Your task to perform on an android device: search for starred emails in the gmail app Image 0: 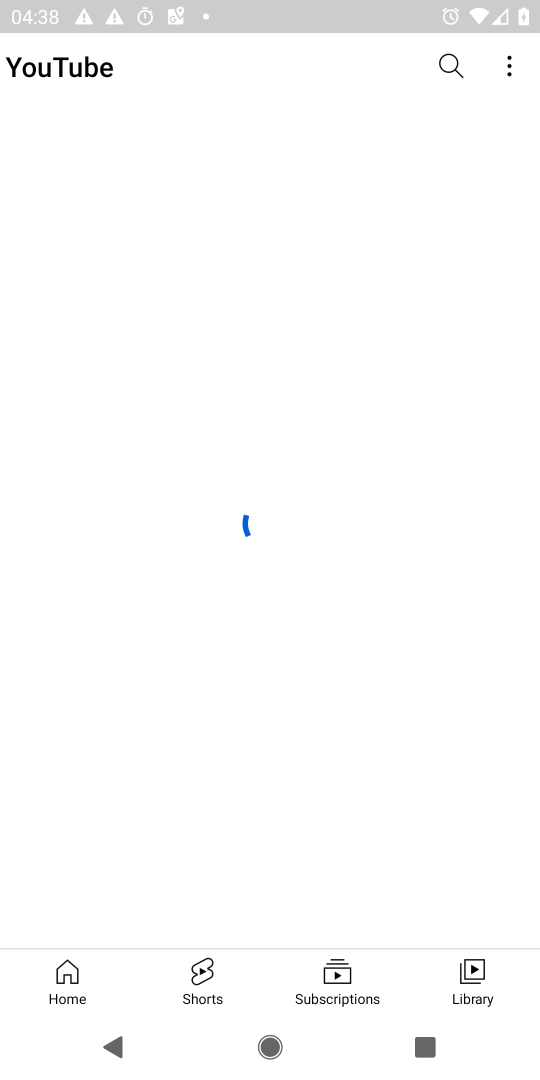
Step 0: press home button
Your task to perform on an android device: search for starred emails in the gmail app Image 1: 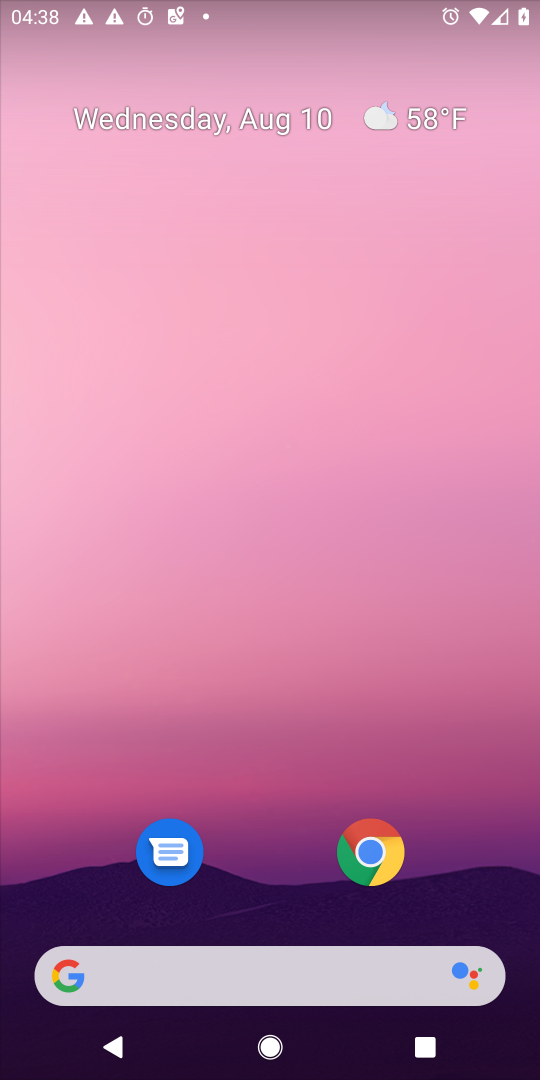
Step 1: drag from (255, 878) to (46, 4)
Your task to perform on an android device: search for starred emails in the gmail app Image 2: 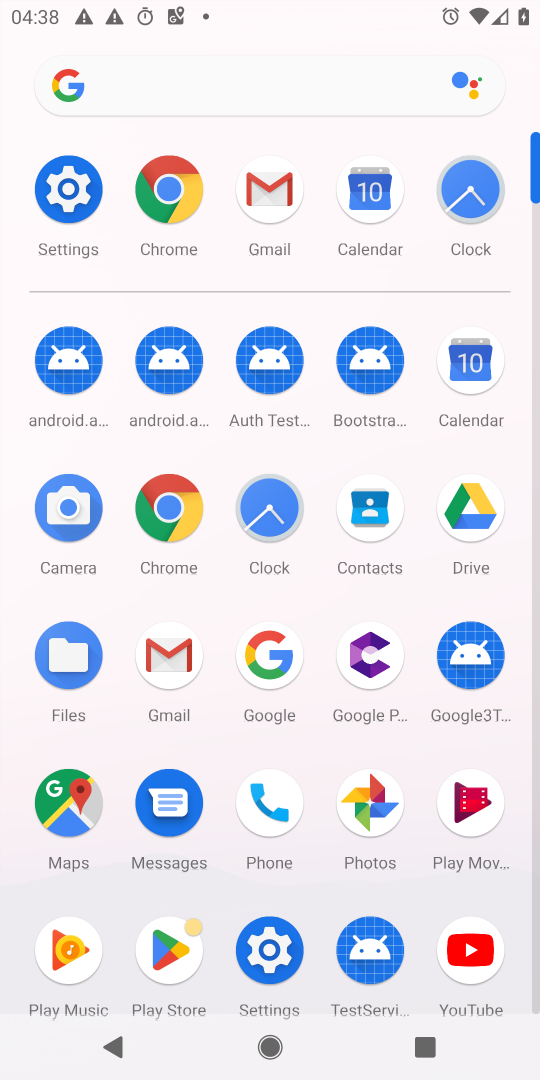
Step 2: click (181, 646)
Your task to perform on an android device: search for starred emails in the gmail app Image 3: 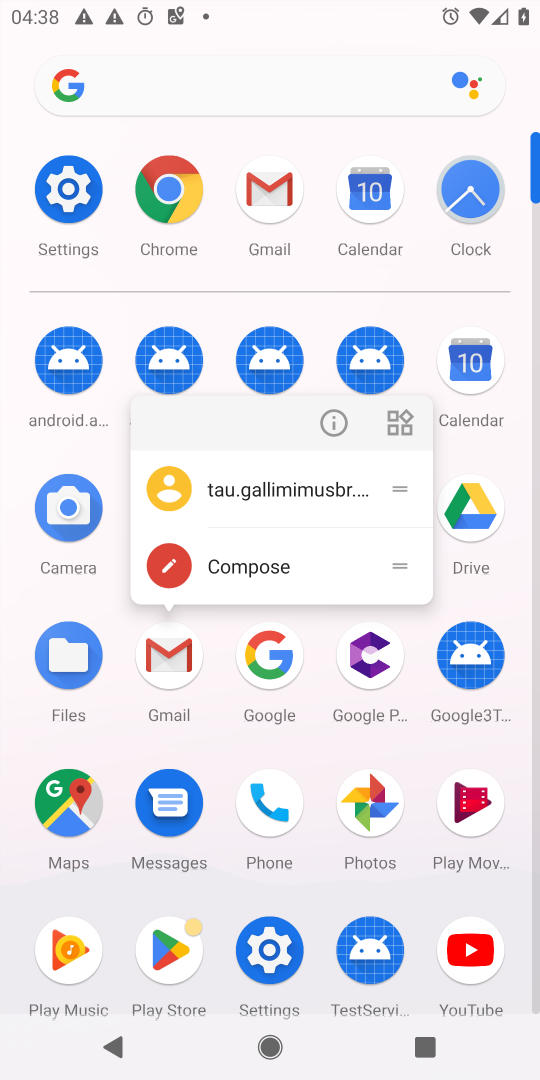
Step 3: click (177, 647)
Your task to perform on an android device: search for starred emails in the gmail app Image 4: 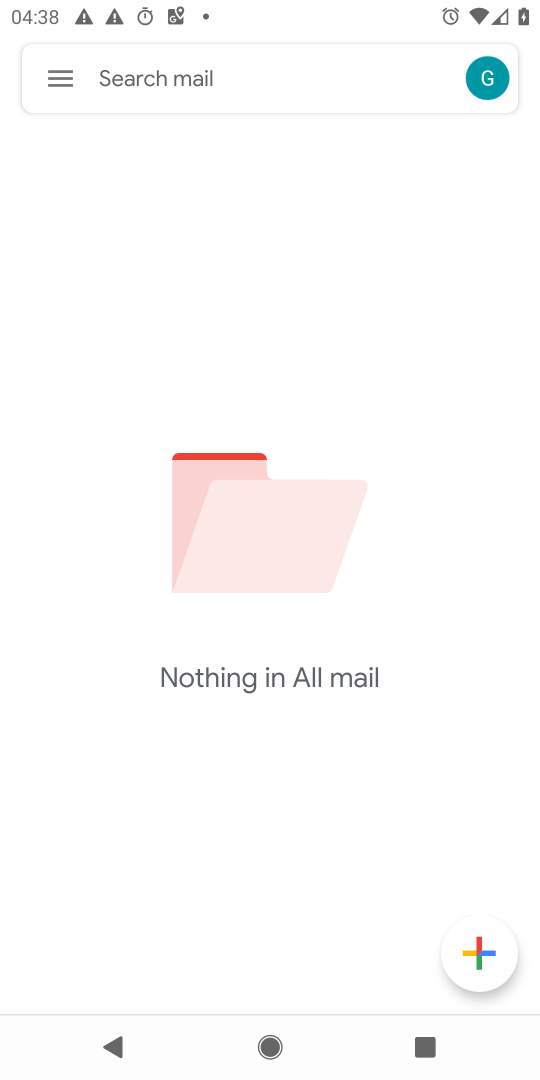
Step 4: click (66, 86)
Your task to perform on an android device: search for starred emails in the gmail app Image 5: 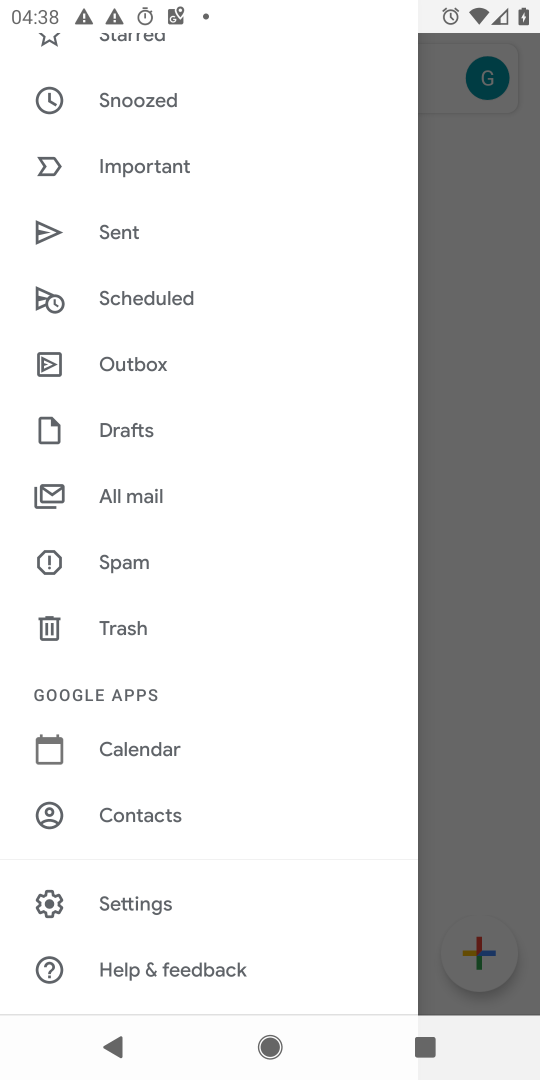
Step 5: drag from (222, 140) to (393, 588)
Your task to perform on an android device: search for starred emails in the gmail app Image 6: 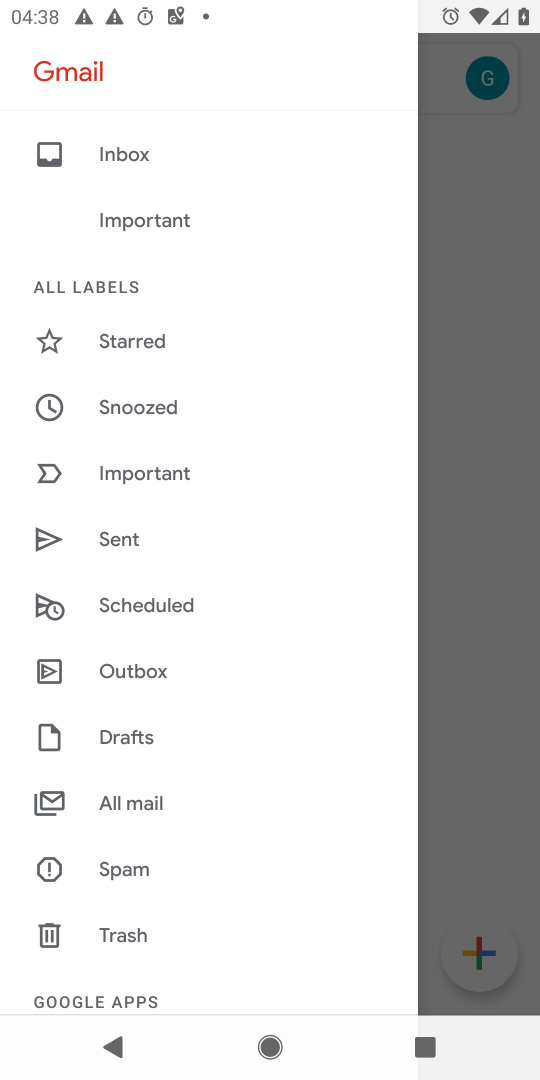
Step 6: click (168, 333)
Your task to perform on an android device: search for starred emails in the gmail app Image 7: 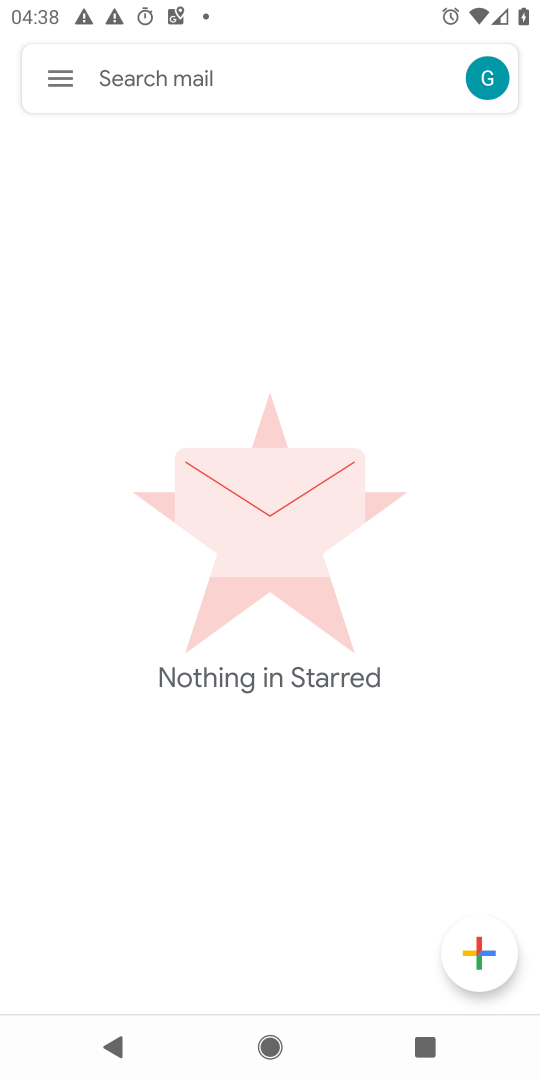
Step 7: task complete